Your task to perform on an android device: Open calendar and show me the third week of next month Image 0: 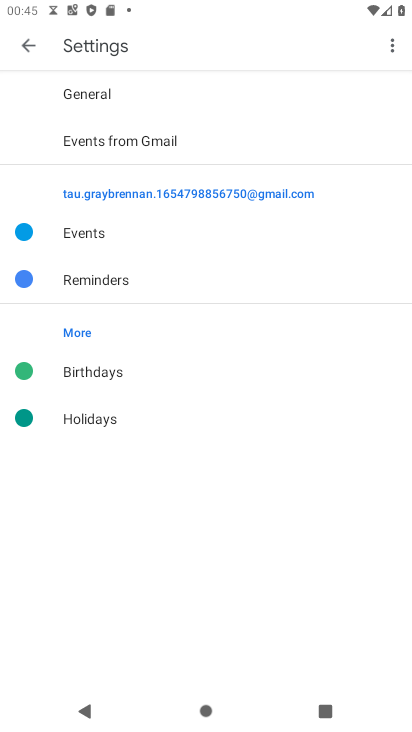
Step 0: press home button
Your task to perform on an android device: Open calendar and show me the third week of next month Image 1: 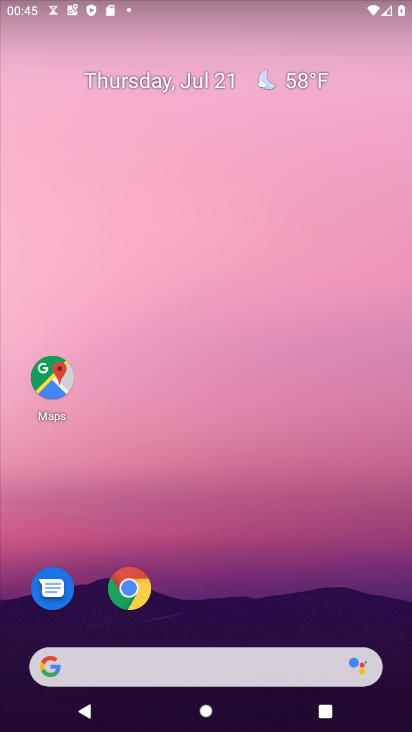
Step 1: drag from (212, 618) to (248, 117)
Your task to perform on an android device: Open calendar and show me the third week of next month Image 2: 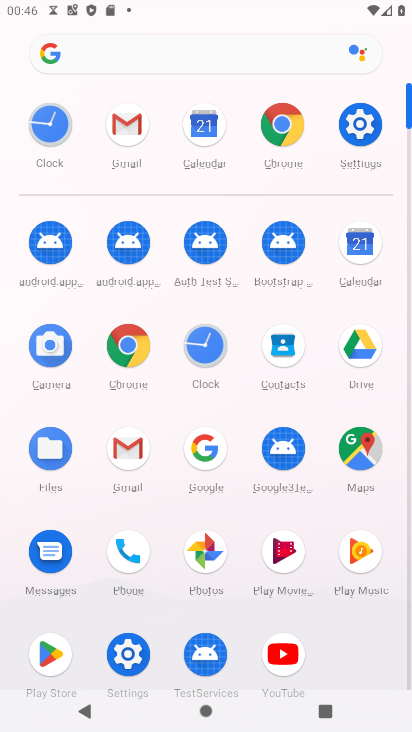
Step 2: click (361, 257)
Your task to perform on an android device: Open calendar and show me the third week of next month Image 3: 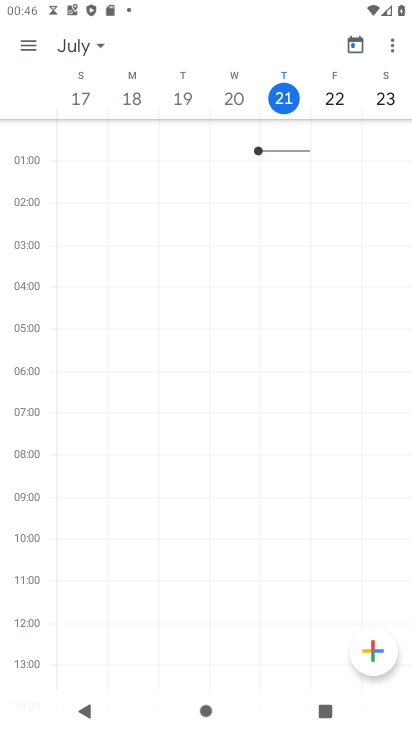
Step 3: click (90, 41)
Your task to perform on an android device: Open calendar and show me the third week of next month Image 4: 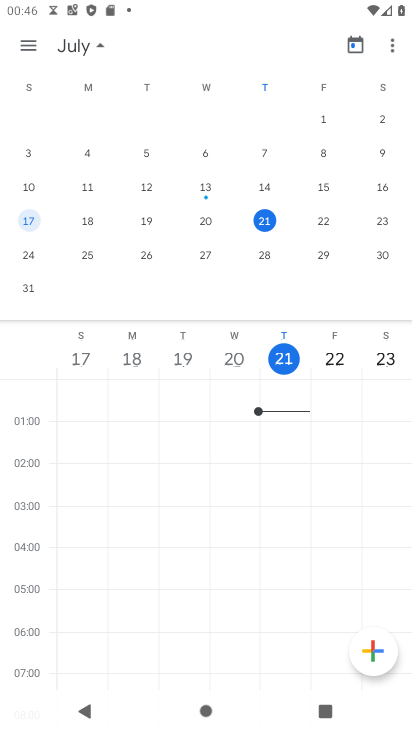
Step 4: drag from (313, 230) to (1, 177)
Your task to perform on an android device: Open calendar and show me the third week of next month Image 5: 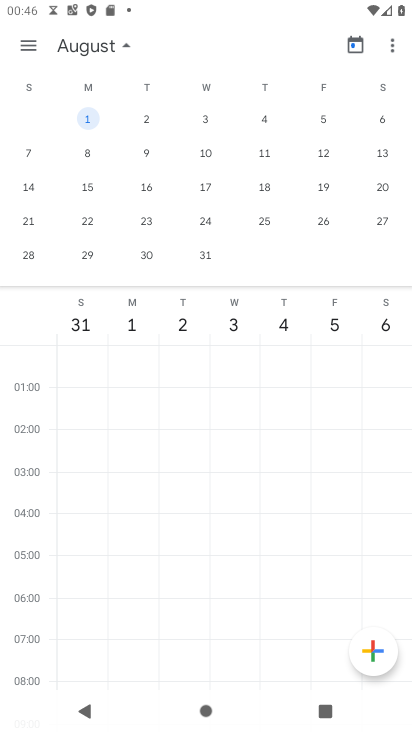
Step 5: click (310, 185)
Your task to perform on an android device: Open calendar and show me the third week of next month Image 6: 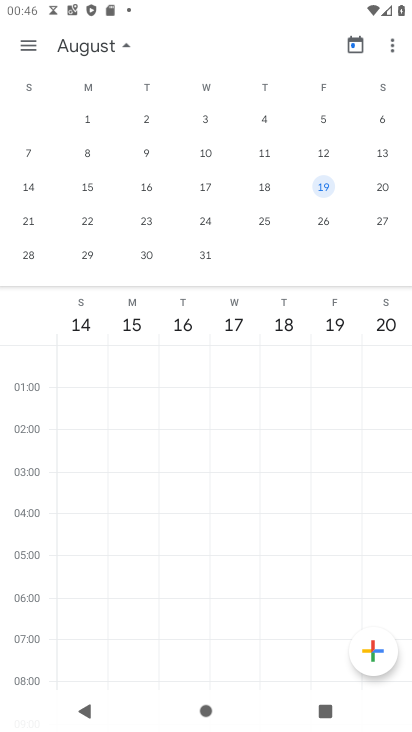
Step 6: drag from (244, 232) to (254, 17)
Your task to perform on an android device: Open calendar and show me the third week of next month Image 7: 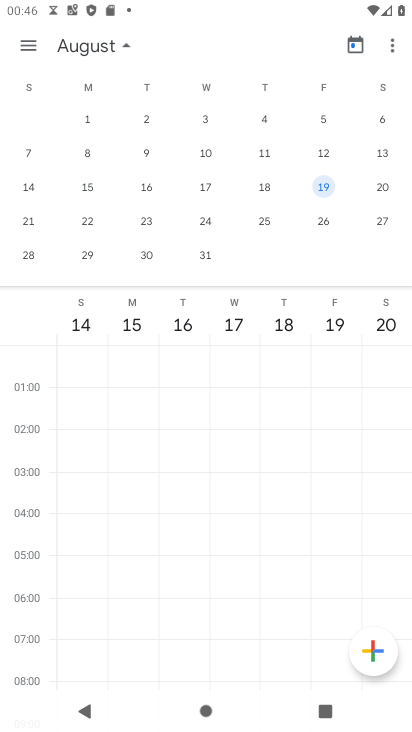
Step 7: click (22, 54)
Your task to perform on an android device: Open calendar and show me the third week of next month Image 8: 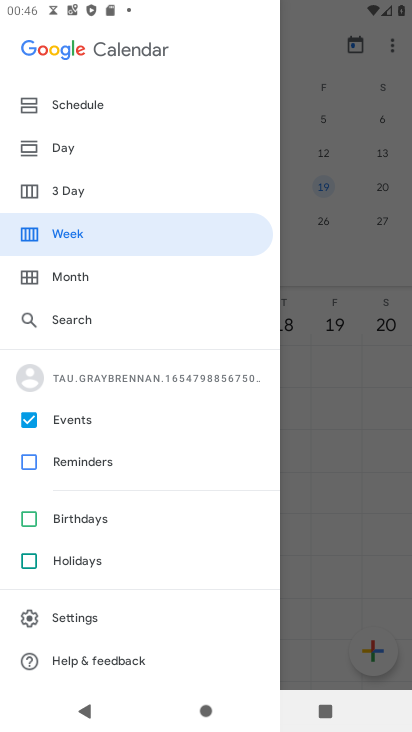
Step 8: click (93, 223)
Your task to perform on an android device: Open calendar and show me the third week of next month Image 9: 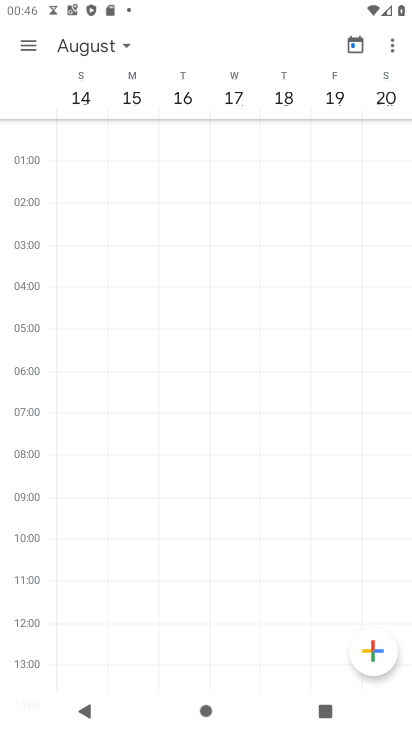
Step 9: task complete